Your task to perform on an android device: toggle location history Image 0: 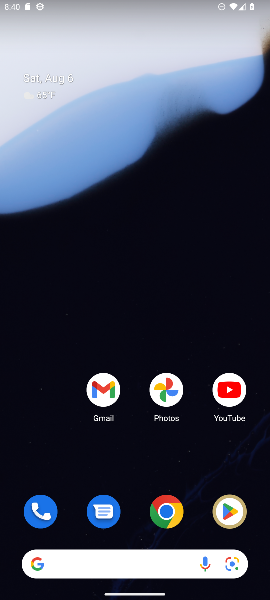
Step 0: press home button
Your task to perform on an android device: toggle location history Image 1: 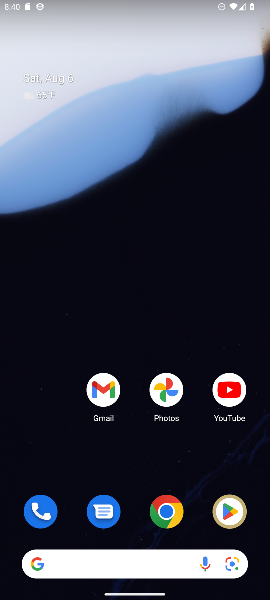
Step 1: drag from (208, 535) to (162, 238)
Your task to perform on an android device: toggle location history Image 2: 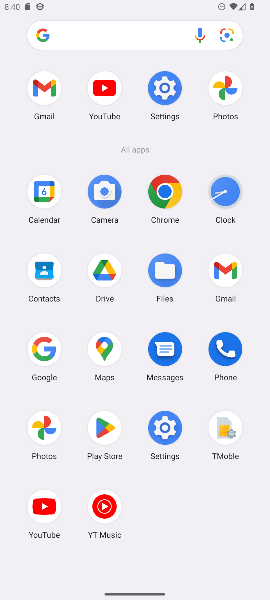
Step 2: click (97, 356)
Your task to perform on an android device: toggle location history Image 3: 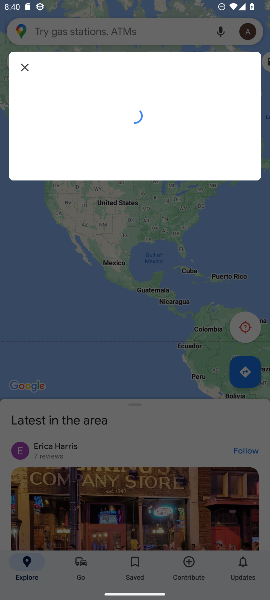
Step 3: click (26, 68)
Your task to perform on an android device: toggle location history Image 4: 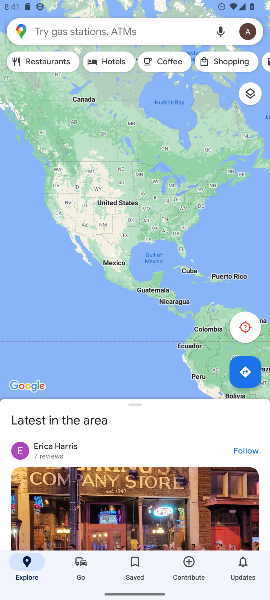
Step 4: click (248, 33)
Your task to perform on an android device: toggle location history Image 5: 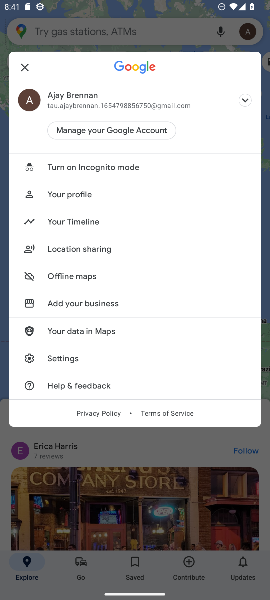
Step 5: click (87, 223)
Your task to perform on an android device: toggle location history Image 6: 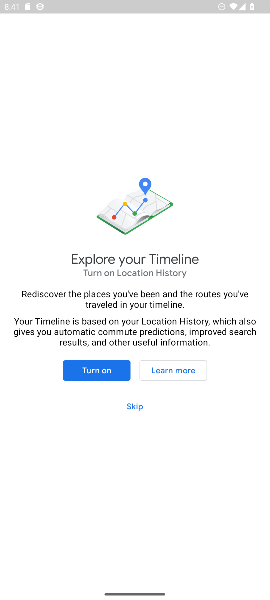
Step 6: click (93, 373)
Your task to perform on an android device: toggle location history Image 7: 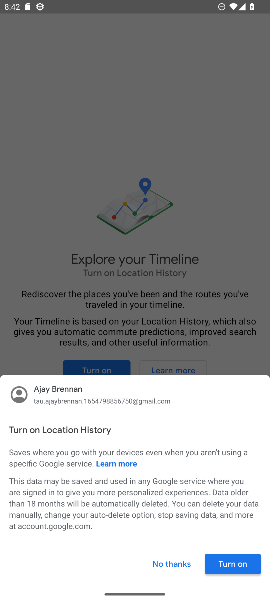
Step 7: click (224, 566)
Your task to perform on an android device: toggle location history Image 8: 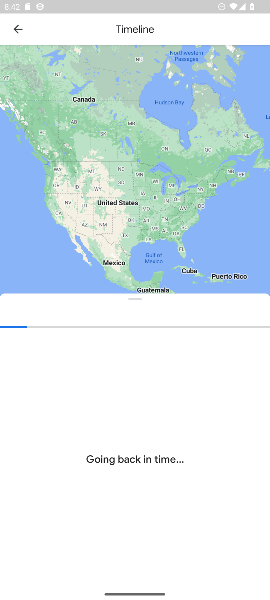
Step 8: task complete